Your task to perform on an android device: Open calendar and show me the second week of next month Image 0: 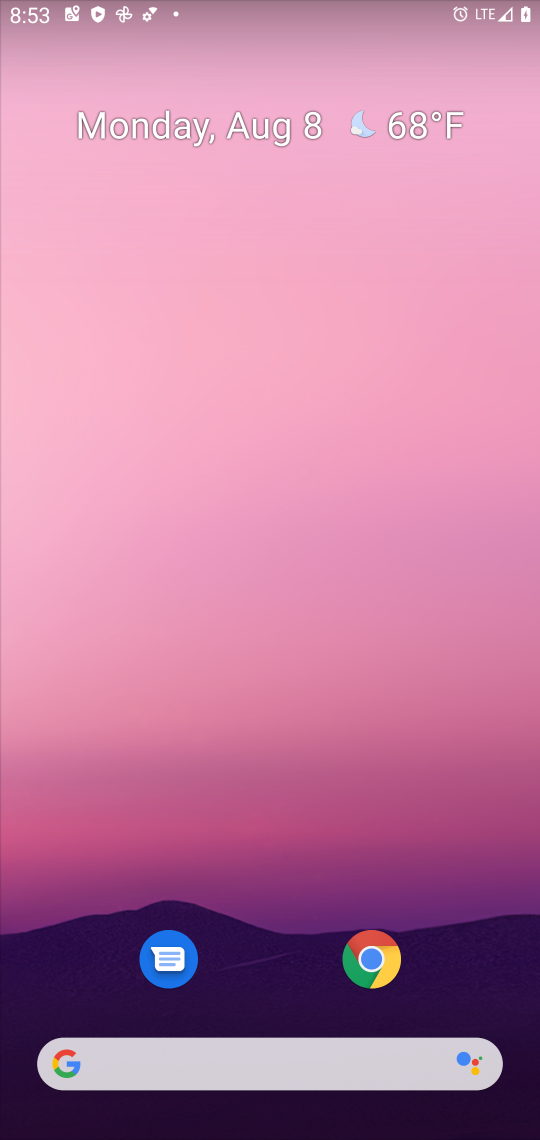
Step 0: drag from (479, 990) to (240, 18)
Your task to perform on an android device: Open calendar and show me the second week of next month Image 1: 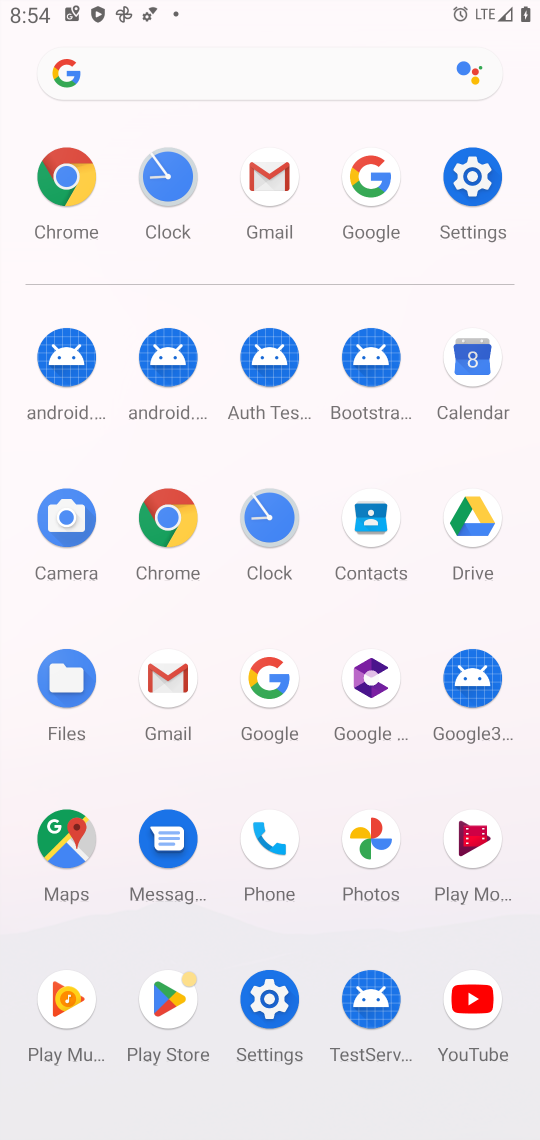
Step 1: click (490, 368)
Your task to perform on an android device: Open calendar and show me the second week of next month Image 2: 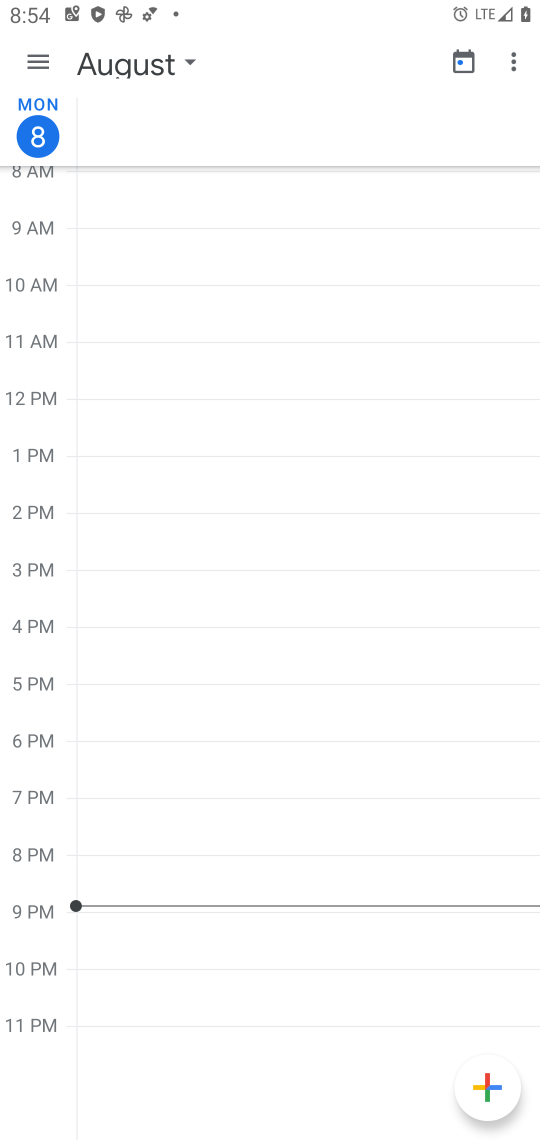
Step 2: click (134, 76)
Your task to perform on an android device: Open calendar and show me the second week of next month Image 3: 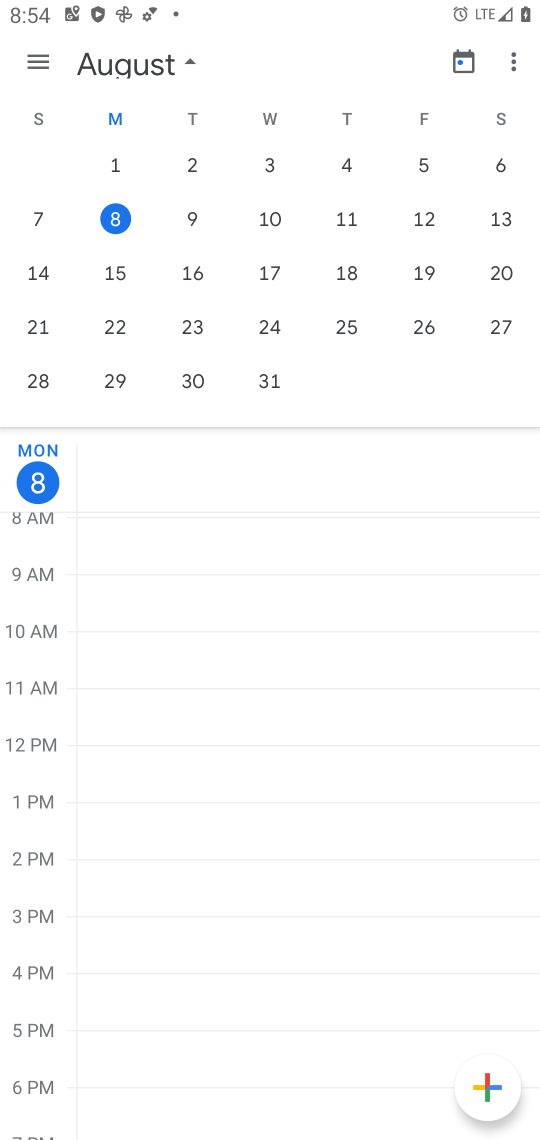
Step 3: drag from (519, 273) to (22, 253)
Your task to perform on an android device: Open calendar and show me the second week of next month Image 4: 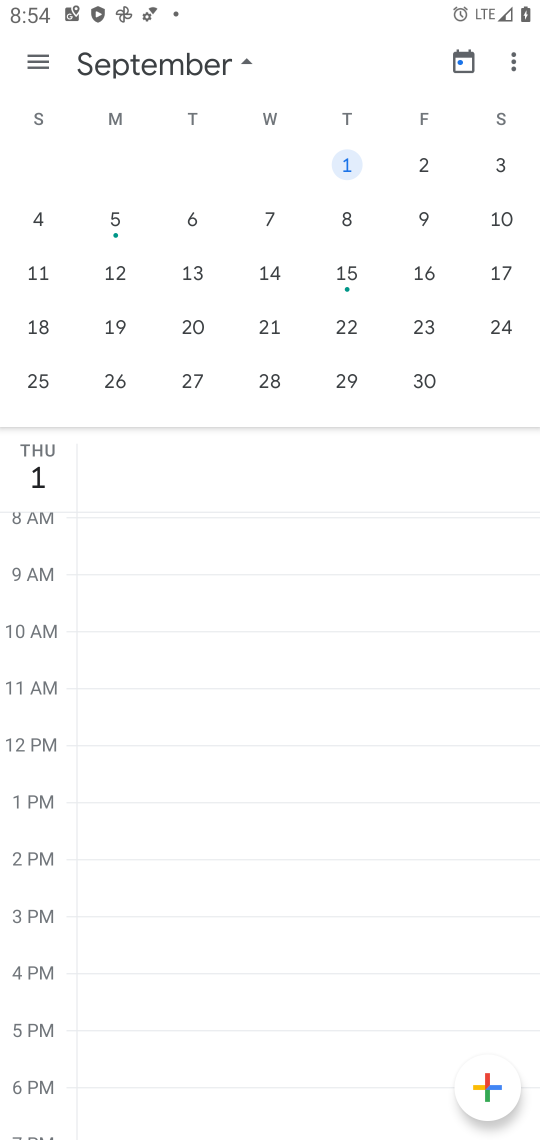
Step 4: click (31, 273)
Your task to perform on an android device: Open calendar and show me the second week of next month Image 5: 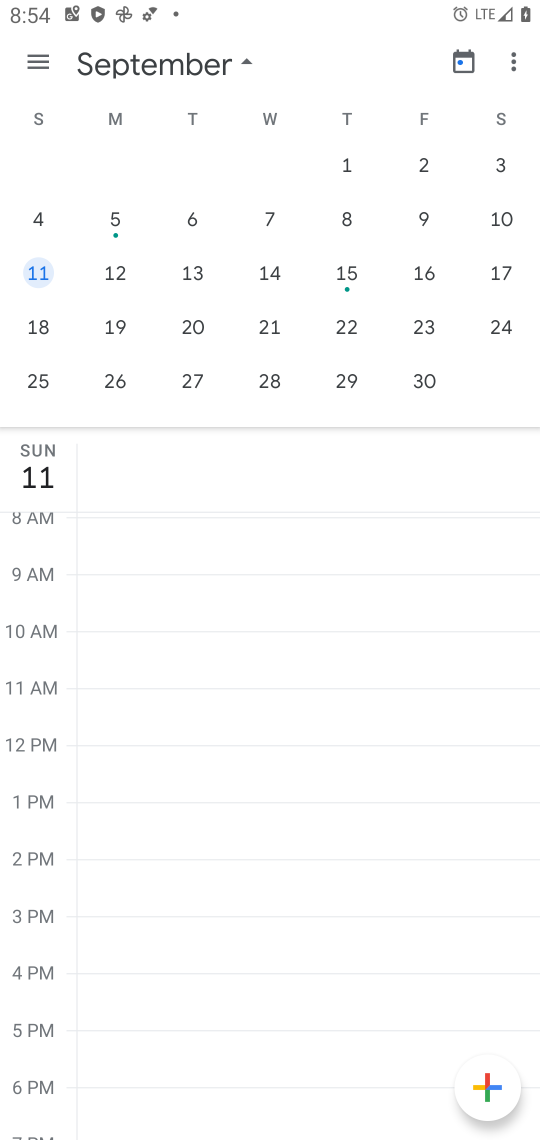
Step 5: task complete